Your task to perform on an android device: move an email to a new category in the gmail app Image 0: 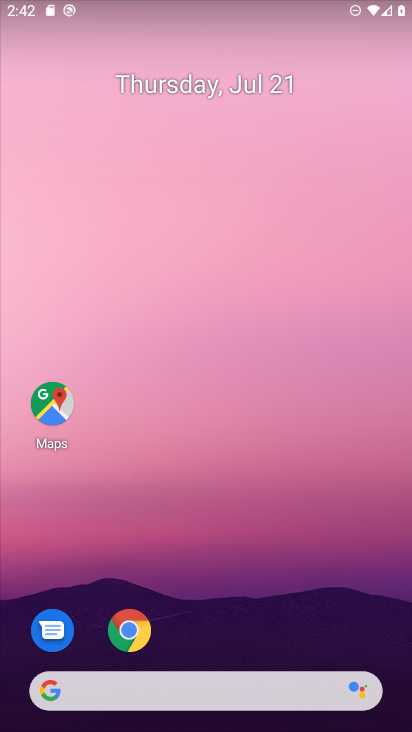
Step 0: drag from (225, 631) to (286, 24)
Your task to perform on an android device: move an email to a new category in the gmail app Image 1: 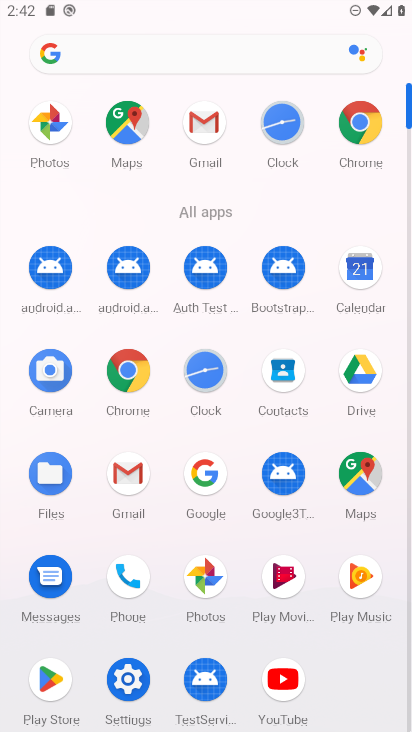
Step 1: click (202, 124)
Your task to perform on an android device: move an email to a new category in the gmail app Image 2: 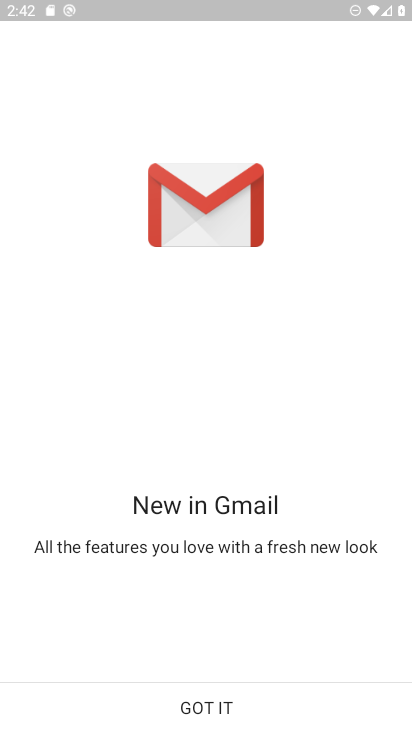
Step 2: click (193, 702)
Your task to perform on an android device: move an email to a new category in the gmail app Image 3: 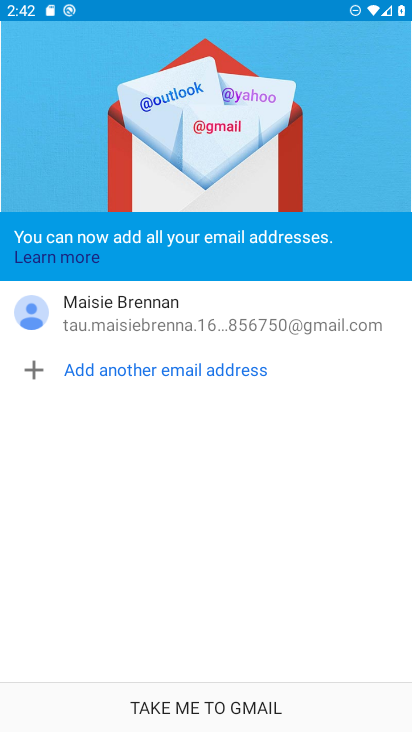
Step 3: click (206, 712)
Your task to perform on an android device: move an email to a new category in the gmail app Image 4: 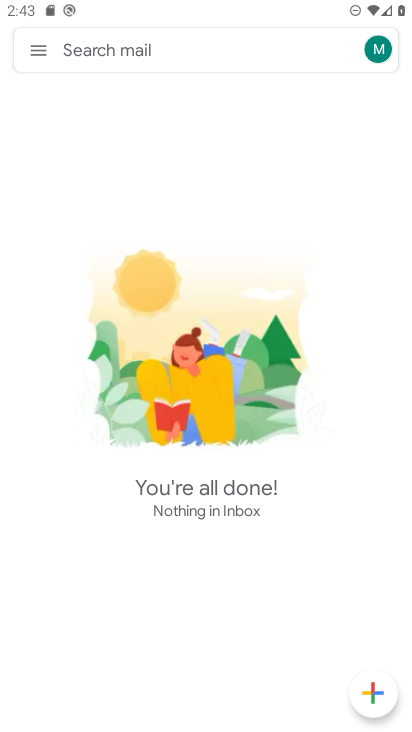
Step 4: click (37, 55)
Your task to perform on an android device: move an email to a new category in the gmail app Image 5: 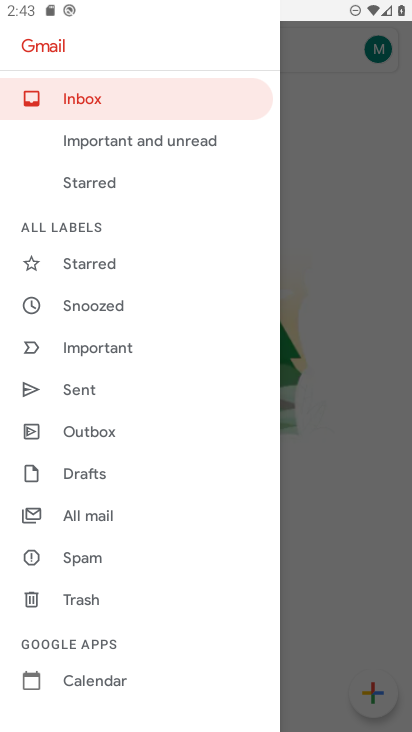
Step 5: click (80, 507)
Your task to perform on an android device: move an email to a new category in the gmail app Image 6: 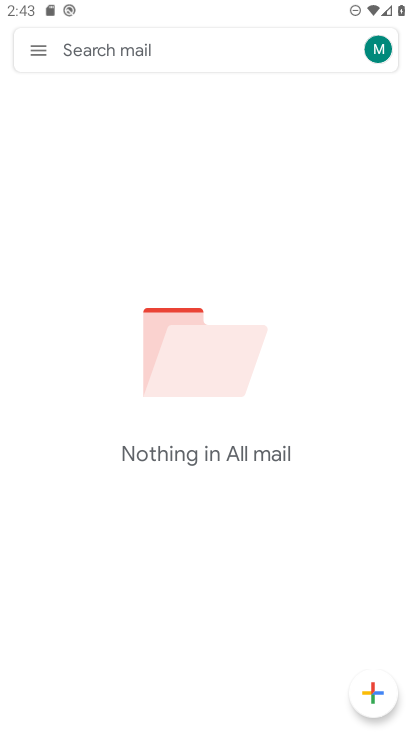
Step 6: task complete